Your task to perform on an android device: Open calendar and show me the first week of next month Image 0: 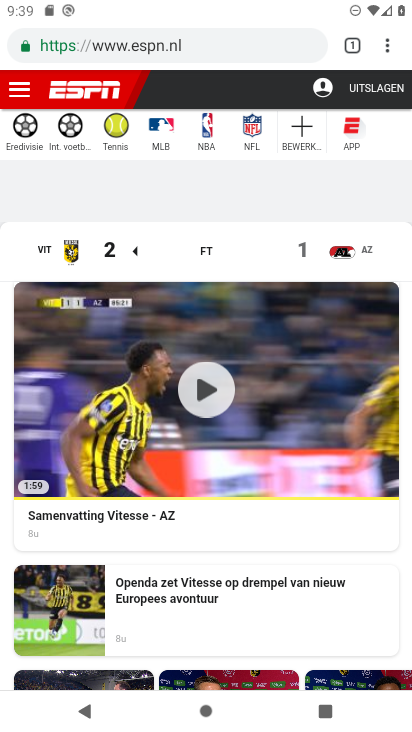
Step 0: press home button
Your task to perform on an android device: Open calendar and show me the first week of next month Image 1: 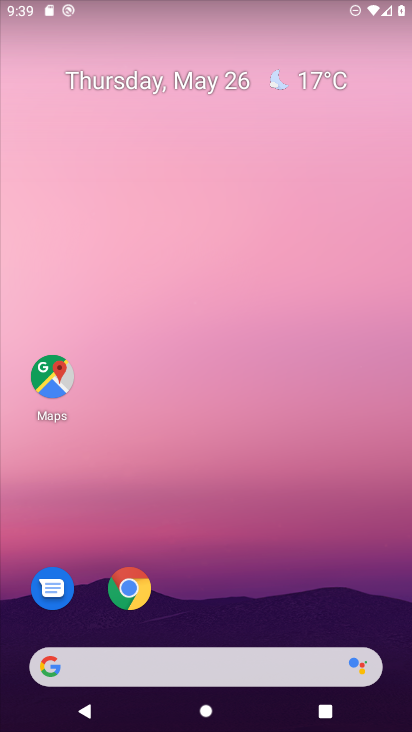
Step 1: drag from (339, 525) to (278, 66)
Your task to perform on an android device: Open calendar and show me the first week of next month Image 2: 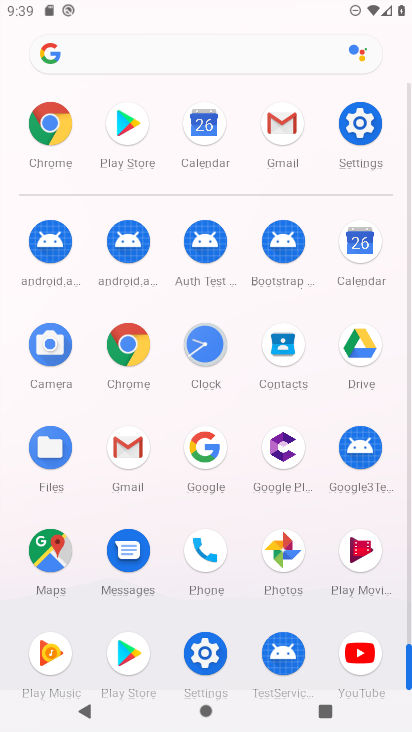
Step 2: click (360, 248)
Your task to perform on an android device: Open calendar and show me the first week of next month Image 3: 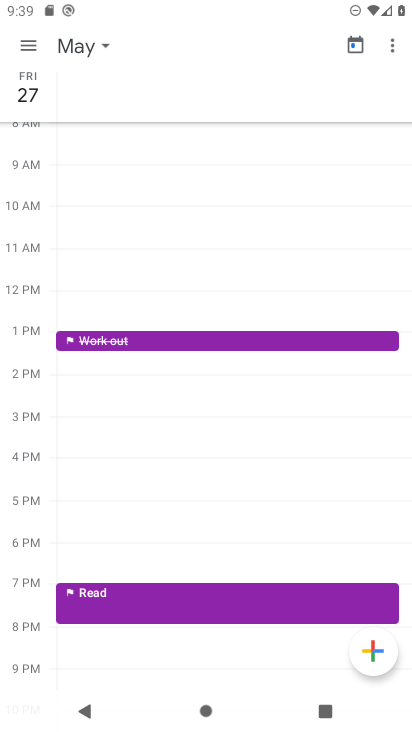
Step 3: click (26, 44)
Your task to perform on an android device: Open calendar and show me the first week of next month Image 4: 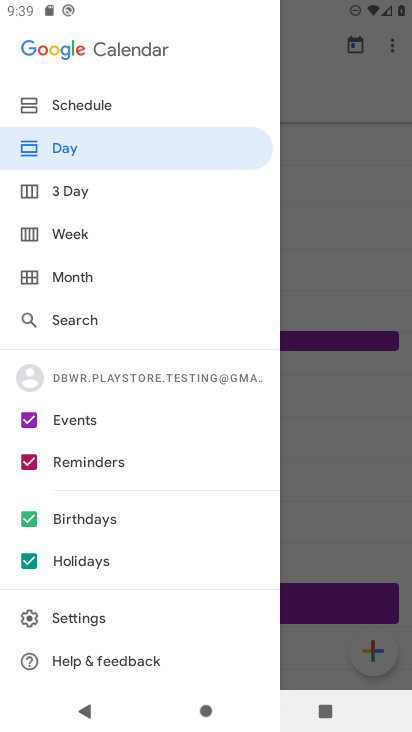
Step 4: click (66, 238)
Your task to perform on an android device: Open calendar and show me the first week of next month Image 5: 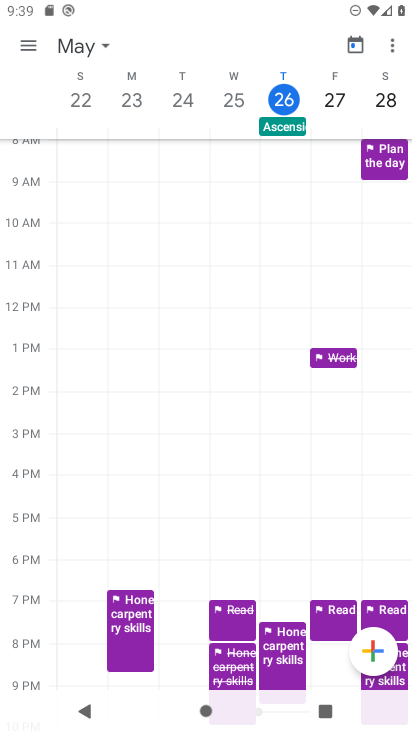
Step 5: click (98, 41)
Your task to perform on an android device: Open calendar and show me the first week of next month Image 6: 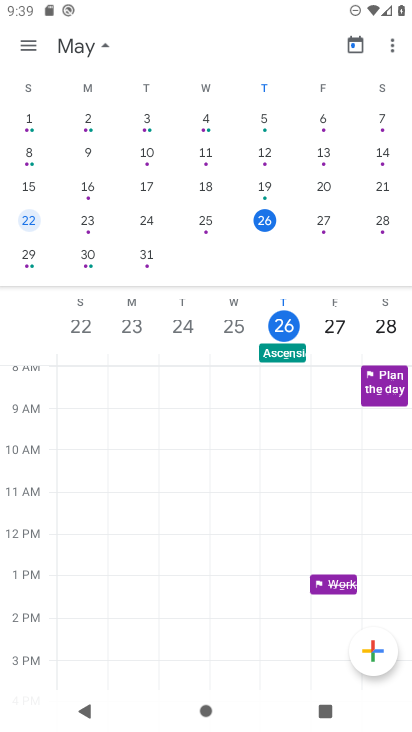
Step 6: drag from (380, 200) to (53, 206)
Your task to perform on an android device: Open calendar and show me the first week of next month Image 7: 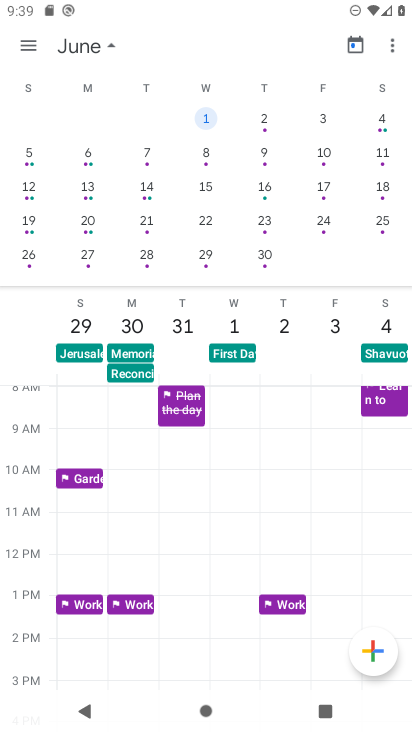
Step 7: click (34, 154)
Your task to perform on an android device: Open calendar and show me the first week of next month Image 8: 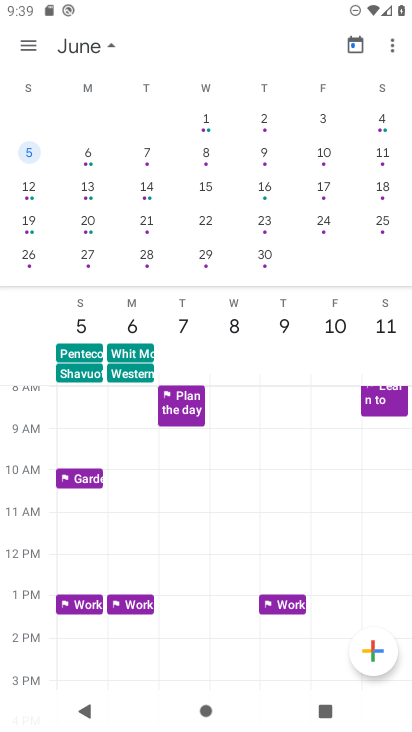
Step 8: task complete